Your task to perform on an android device: Open the map Image 0: 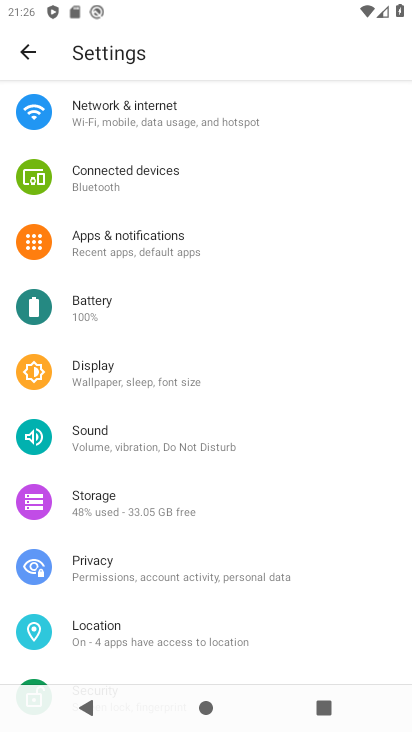
Step 0: press home button
Your task to perform on an android device: Open the map Image 1: 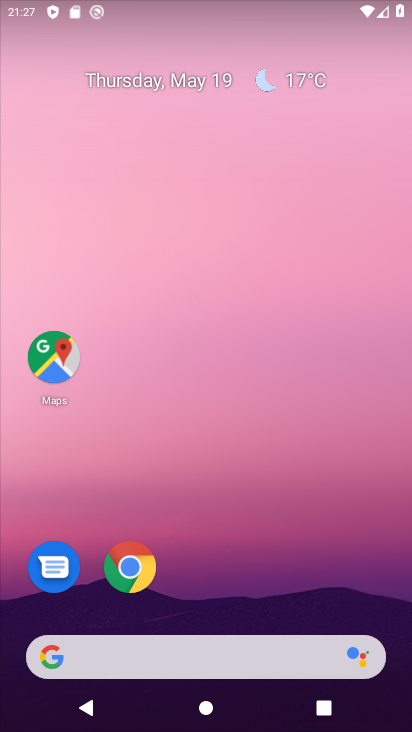
Step 1: click (46, 358)
Your task to perform on an android device: Open the map Image 2: 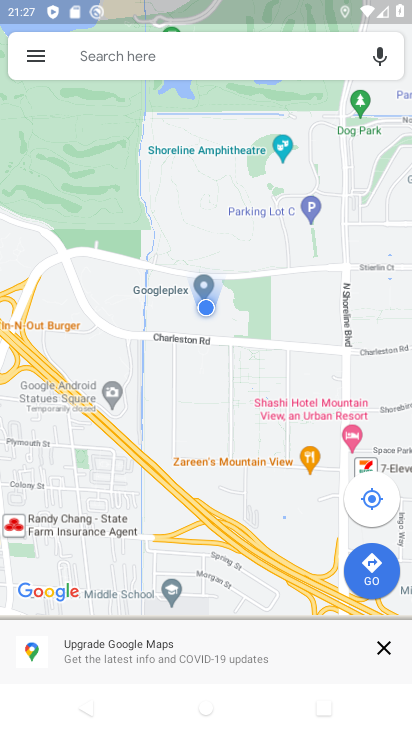
Step 2: task complete